Your task to perform on an android device: toggle notification dots Image 0: 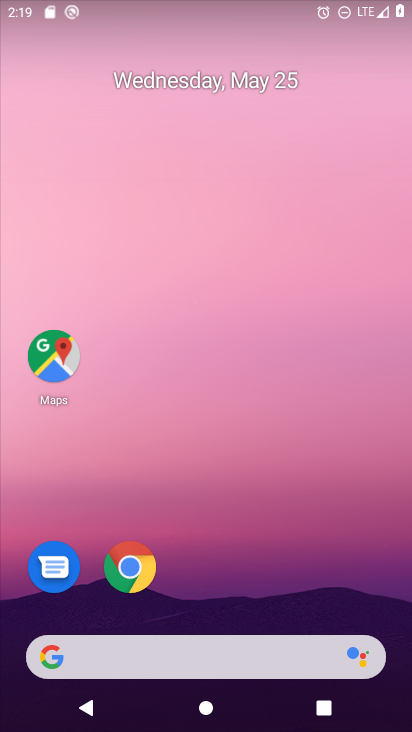
Step 0: drag from (386, 584) to (328, 232)
Your task to perform on an android device: toggle notification dots Image 1: 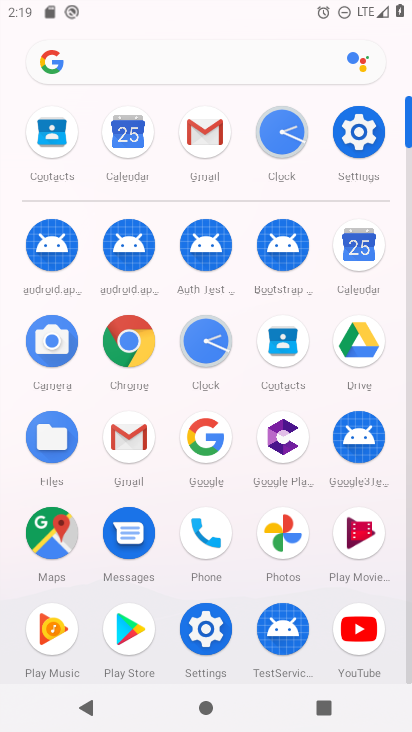
Step 1: click (364, 115)
Your task to perform on an android device: toggle notification dots Image 2: 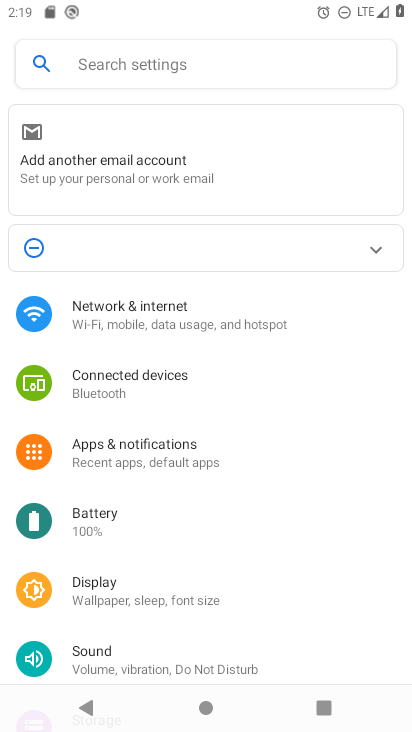
Step 2: click (108, 450)
Your task to perform on an android device: toggle notification dots Image 3: 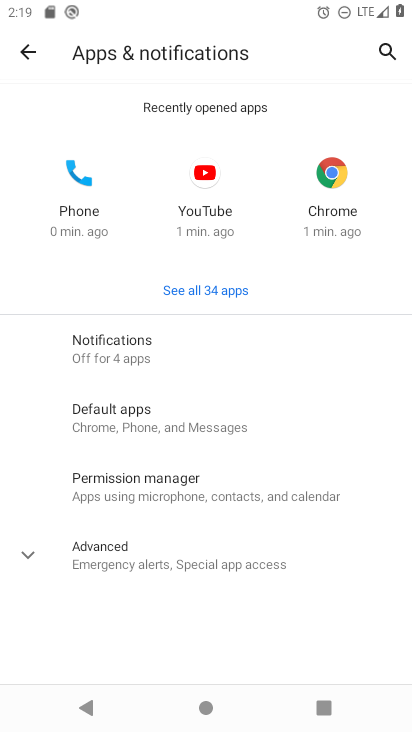
Step 3: click (104, 341)
Your task to perform on an android device: toggle notification dots Image 4: 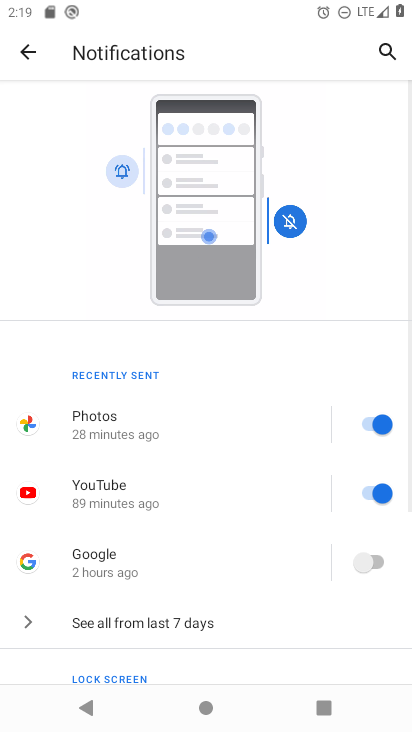
Step 4: drag from (251, 658) to (297, 216)
Your task to perform on an android device: toggle notification dots Image 5: 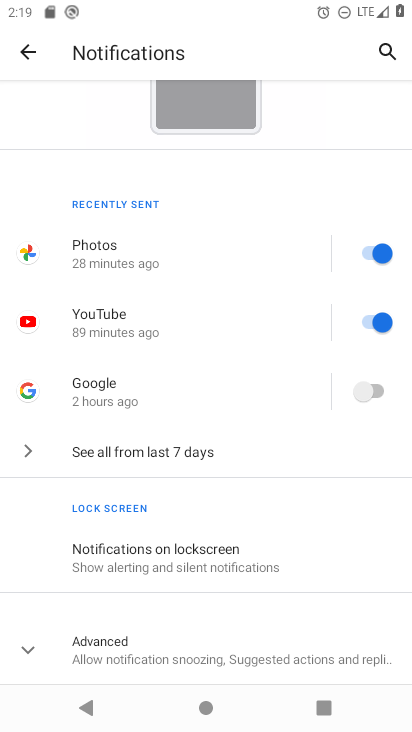
Step 5: click (44, 646)
Your task to perform on an android device: toggle notification dots Image 6: 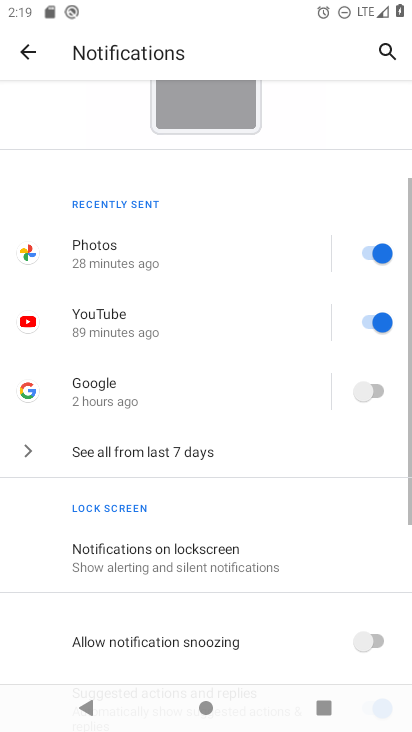
Step 6: drag from (253, 660) to (291, 219)
Your task to perform on an android device: toggle notification dots Image 7: 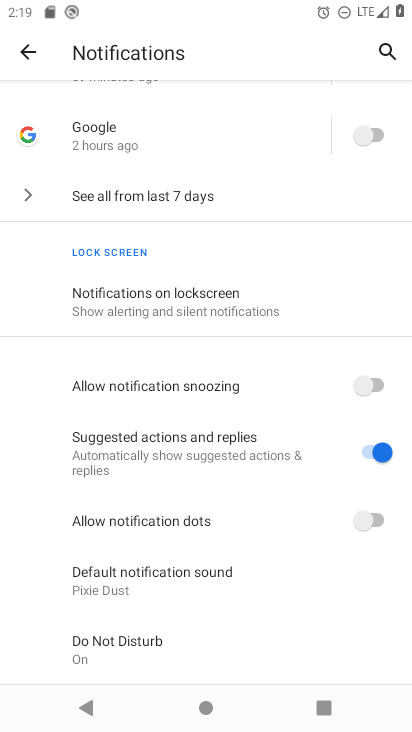
Step 7: click (366, 519)
Your task to perform on an android device: toggle notification dots Image 8: 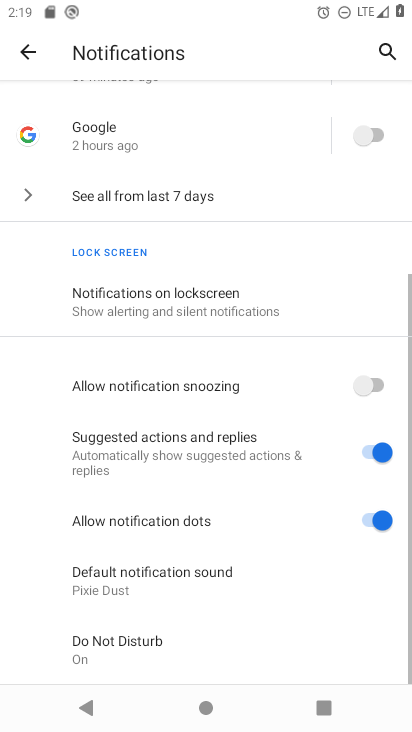
Step 8: task complete